Your task to perform on an android device: find which apps use the phone's location Image 0: 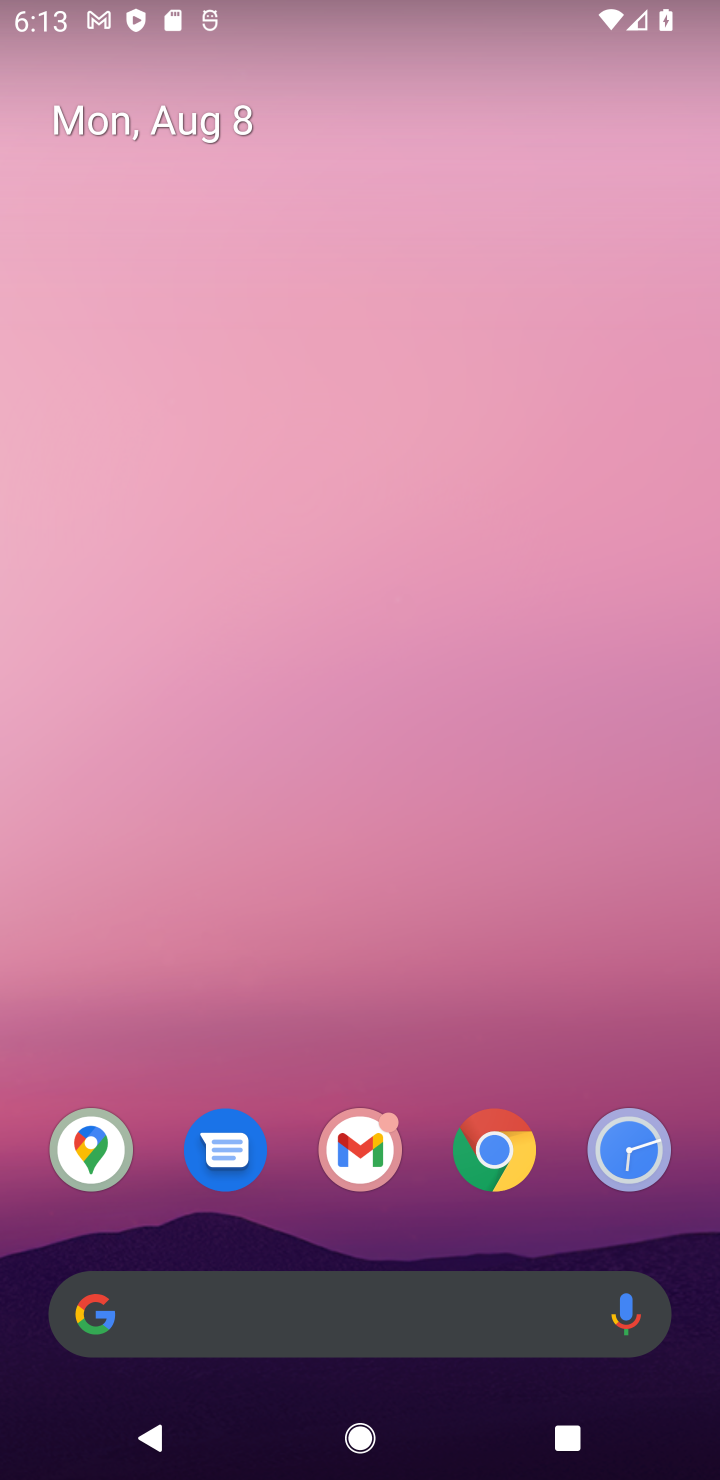
Step 0: drag from (434, 1219) to (264, 110)
Your task to perform on an android device: find which apps use the phone's location Image 1: 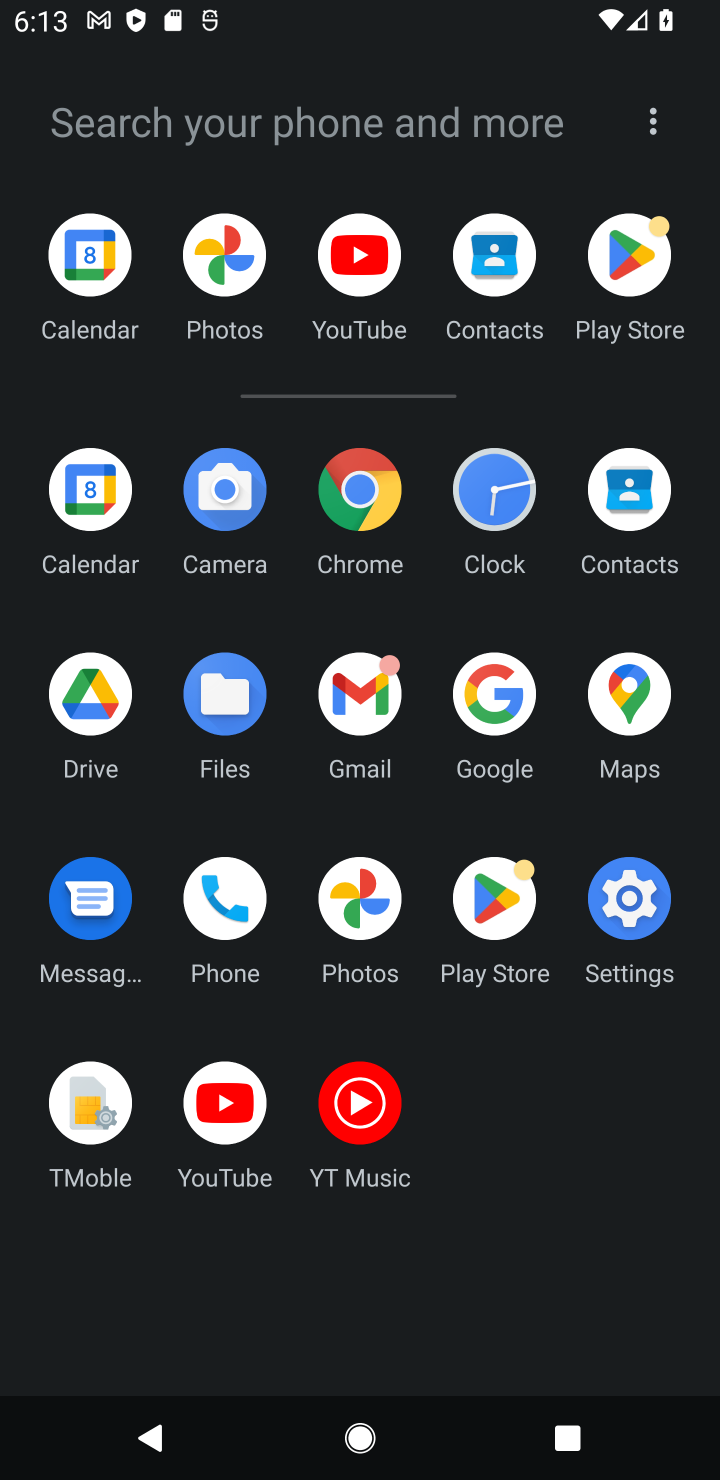
Step 1: click (589, 902)
Your task to perform on an android device: find which apps use the phone's location Image 2: 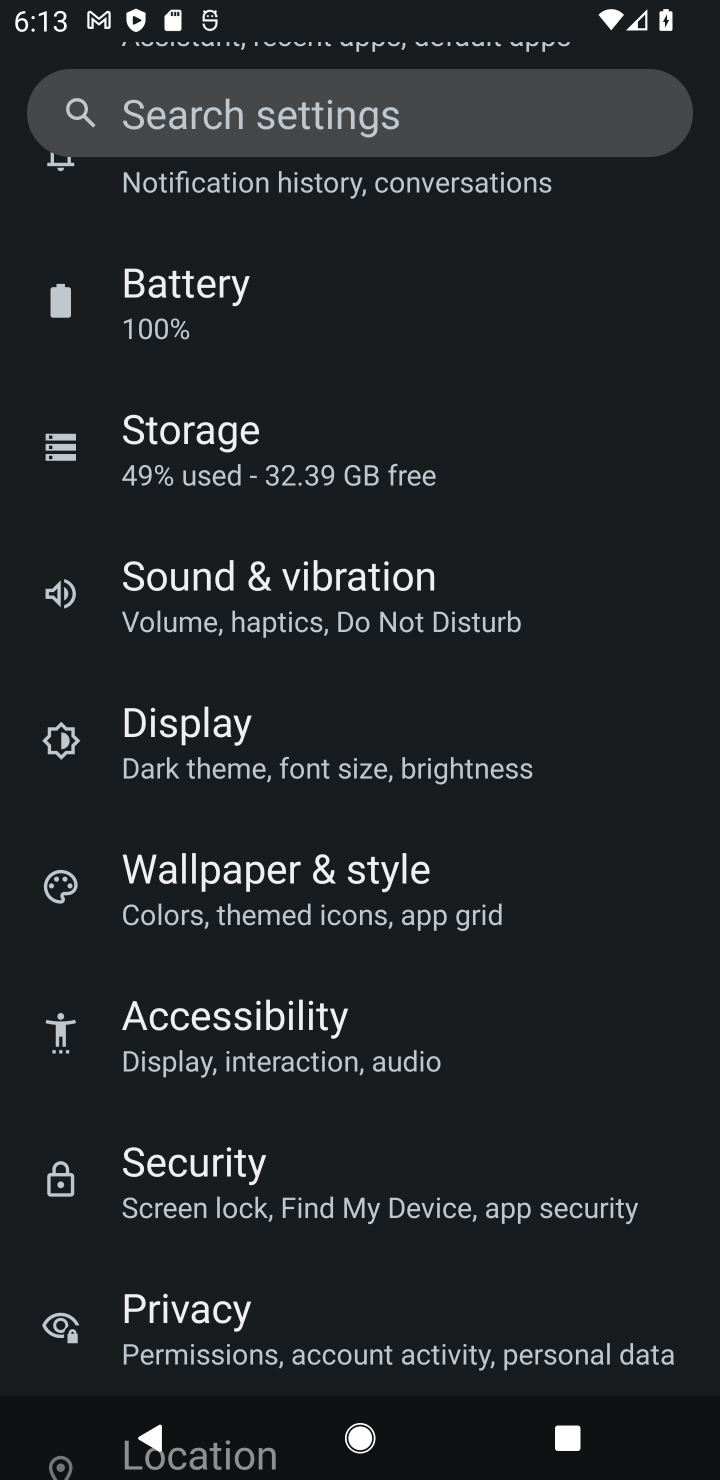
Step 2: task complete